Your task to perform on an android device: Clear the cart on bestbuy. Add "duracell triple a" to the cart on bestbuy, then select checkout. Image 0: 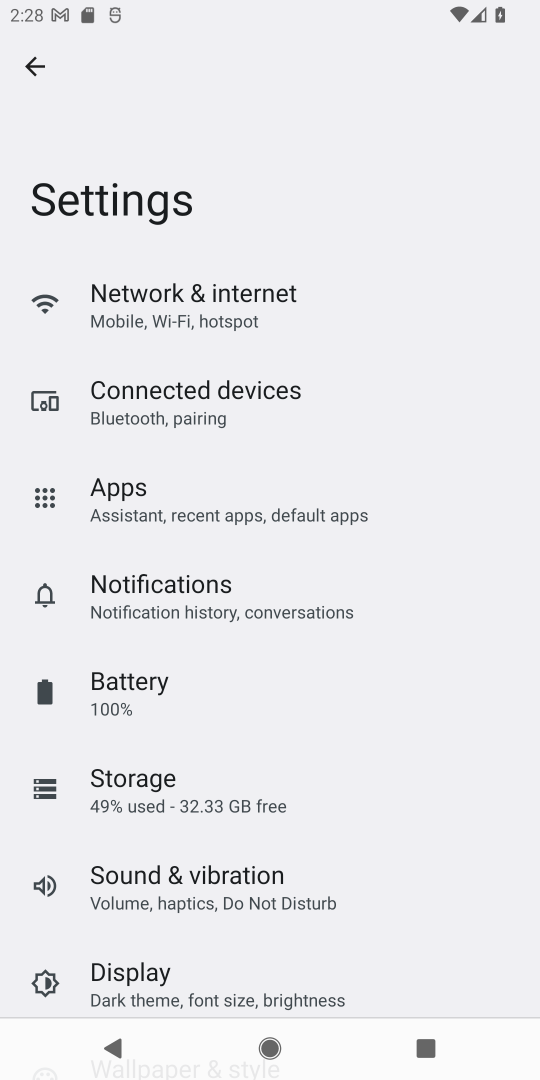
Step 0: press home button
Your task to perform on an android device: Clear the cart on bestbuy. Add "duracell triple a" to the cart on bestbuy, then select checkout. Image 1: 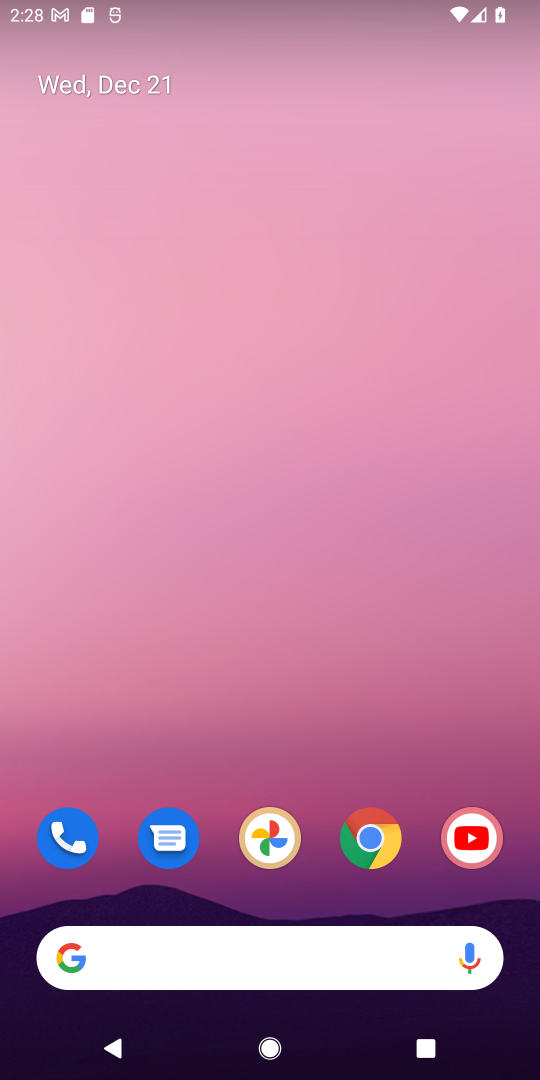
Step 1: click (347, 851)
Your task to perform on an android device: Clear the cart on bestbuy. Add "duracell triple a" to the cart on bestbuy, then select checkout. Image 2: 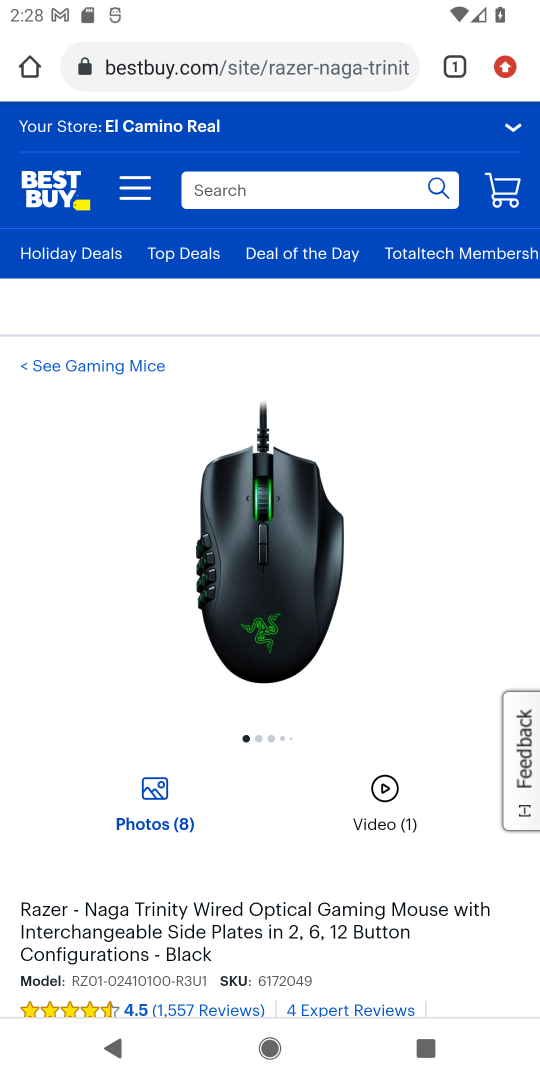
Step 2: task complete